Your task to perform on an android device: change the clock display to digital Image 0: 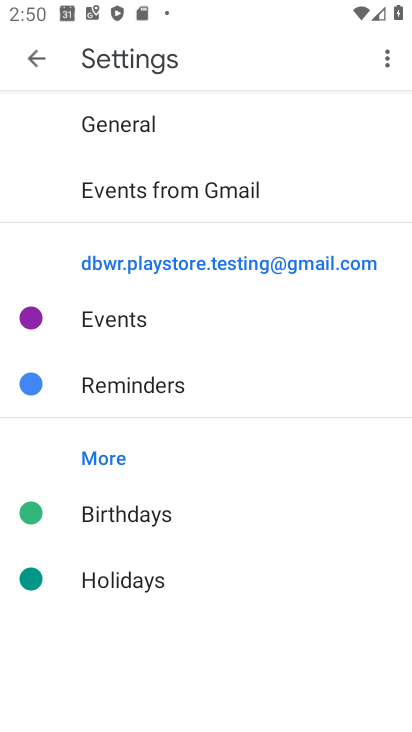
Step 0: press back button
Your task to perform on an android device: change the clock display to digital Image 1: 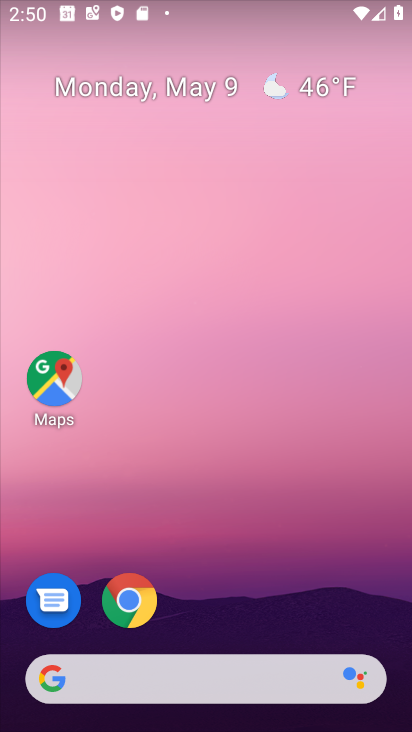
Step 1: drag from (262, 653) to (265, 445)
Your task to perform on an android device: change the clock display to digital Image 2: 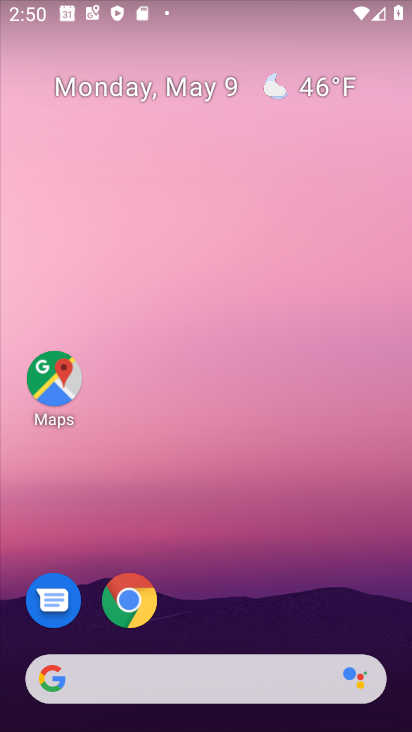
Step 2: drag from (214, 647) to (258, 306)
Your task to perform on an android device: change the clock display to digital Image 3: 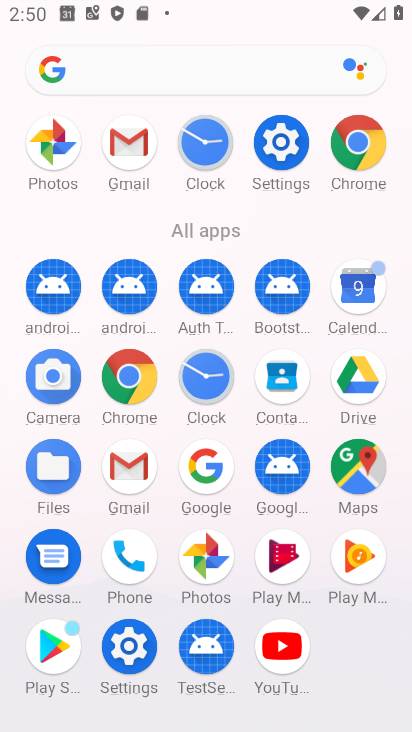
Step 3: click (225, 367)
Your task to perform on an android device: change the clock display to digital Image 4: 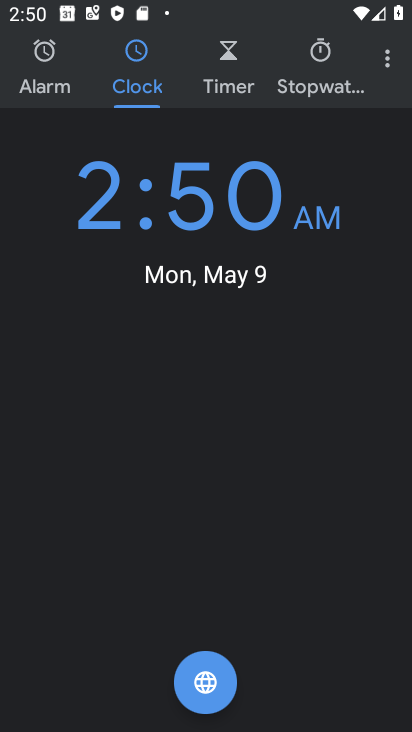
Step 4: click (382, 74)
Your task to perform on an android device: change the clock display to digital Image 5: 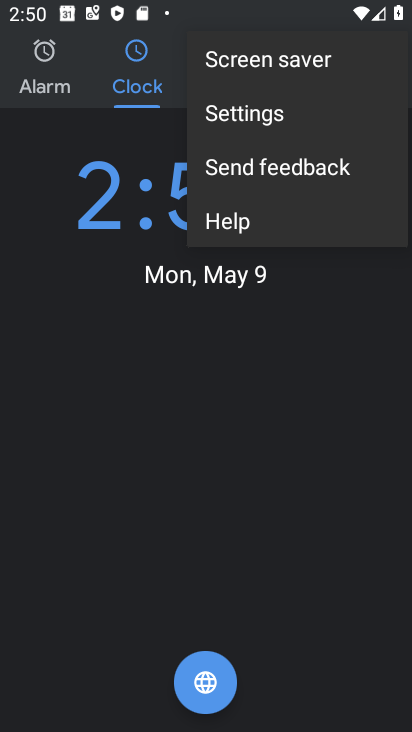
Step 5: click (333, 127)
Your task to perform on an android device: change the clock display to digital Image 6: 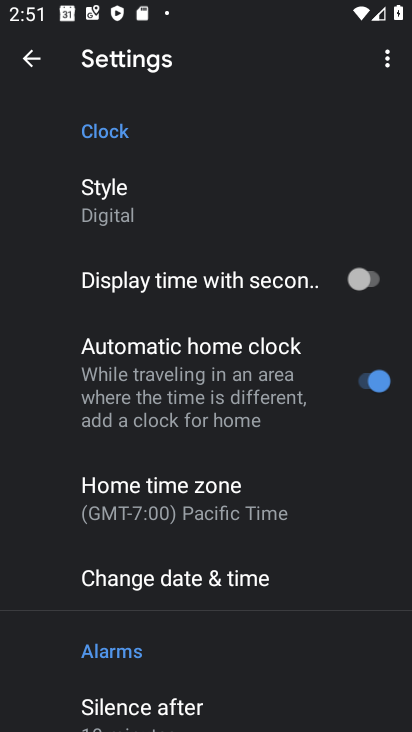
Step 6: task complete